Your task to perform on an android device: turn on improve location accuracy Image 0: 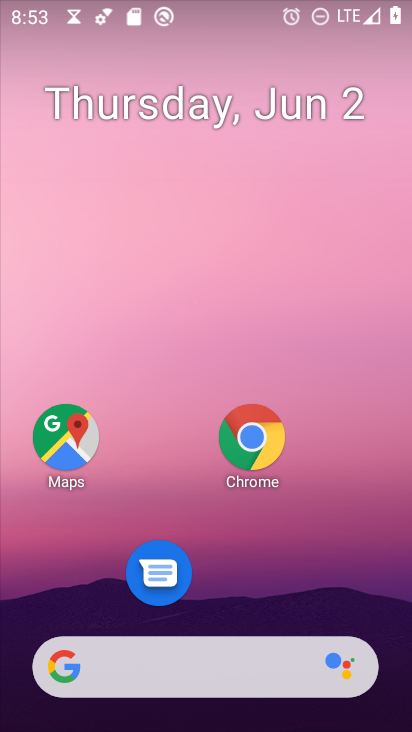
Step 0: drag from (162, 658) to (281, 132)
Your task to perform on an android device: turn on improve location accuracy Image 1: 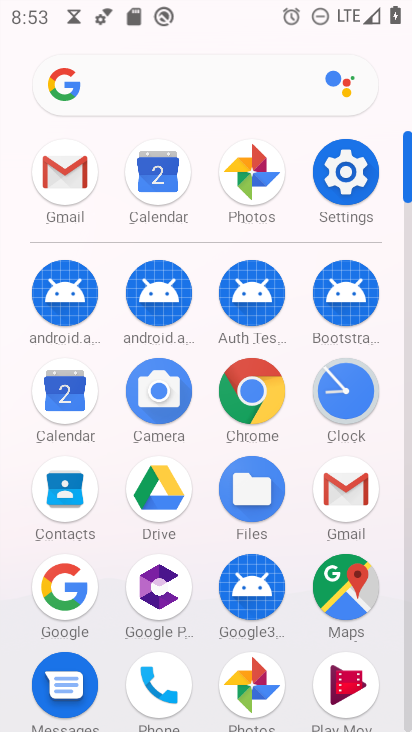
Step 1: click (348, 174)
Your task to perform on an android device: turn on improve location accuracy Image 2: 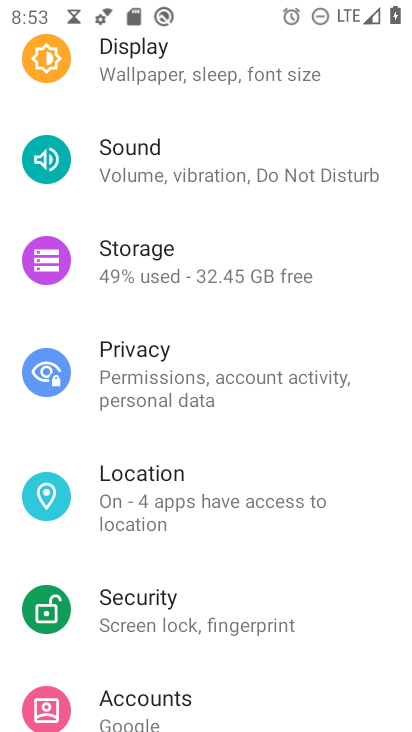
Step 2: click (162, 486)
Your task to perform on an android device: turn on improve location accuracy Image 3: 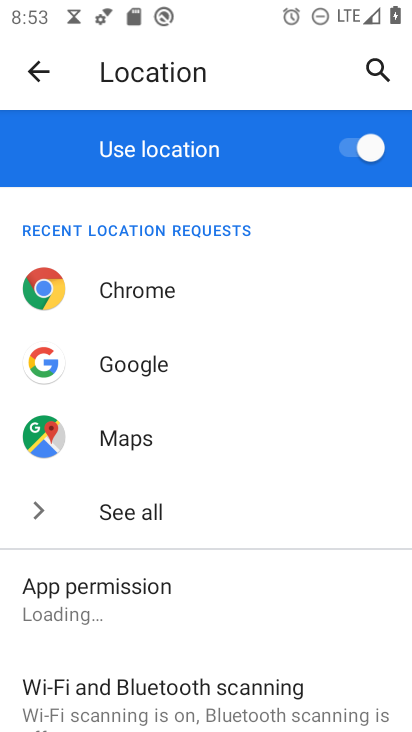
Step 3: drag from (179, 618) to (356, 177)
Your task to perform on an android device: turn on improve location accuracy Image 4: 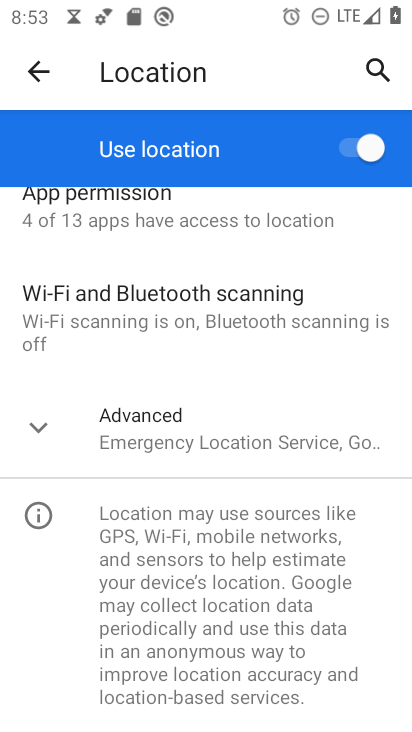
Step 4: click (153, 432)
Your task to perform on an android device: turn on improve location accuracy Image 5: 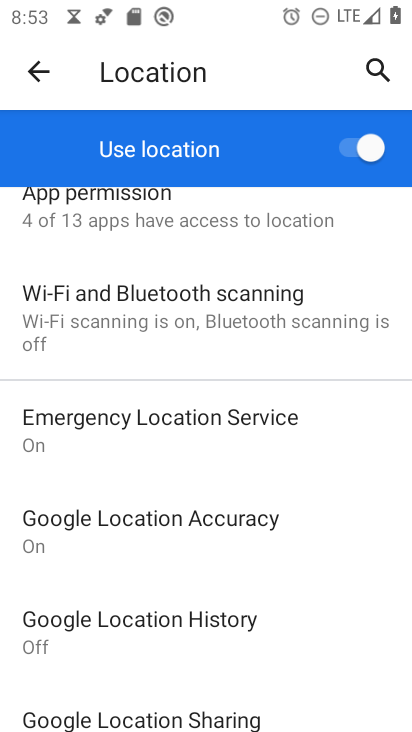
Step 5: click (140, 531)
Your task to perform on an android device: turn on improve location accuracy Image 6: 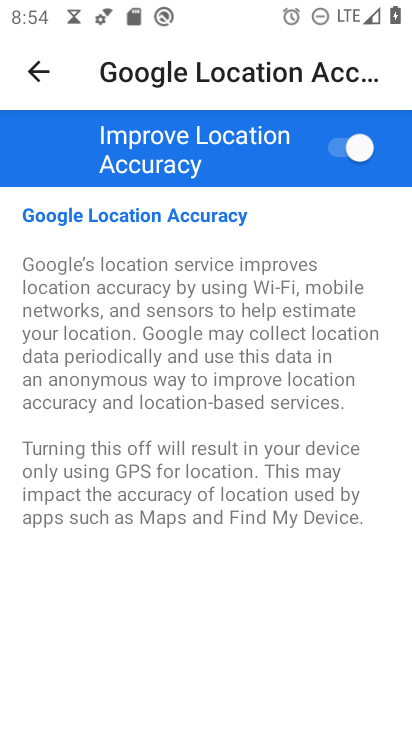
Step 6: task complete